Your task to perform on an android device: Open the calendar app, open the side menu, and click the "Day" option Image 0: 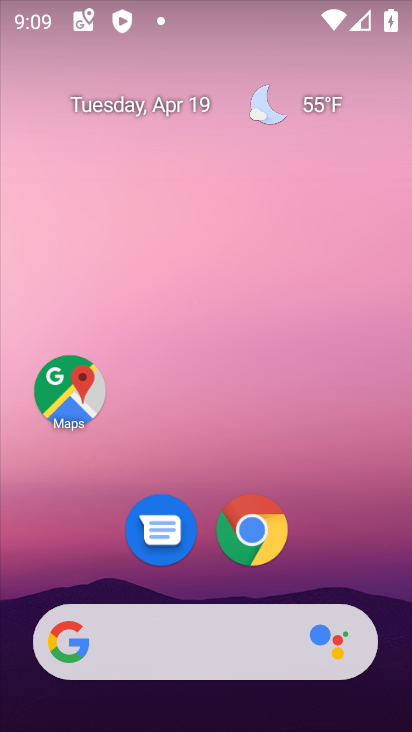
Step 0: drag from (341, 525) to (378, 109)
Your task to perform on an android device: Open the calendar app, open the side menu, and click the "Day" option Image 1: 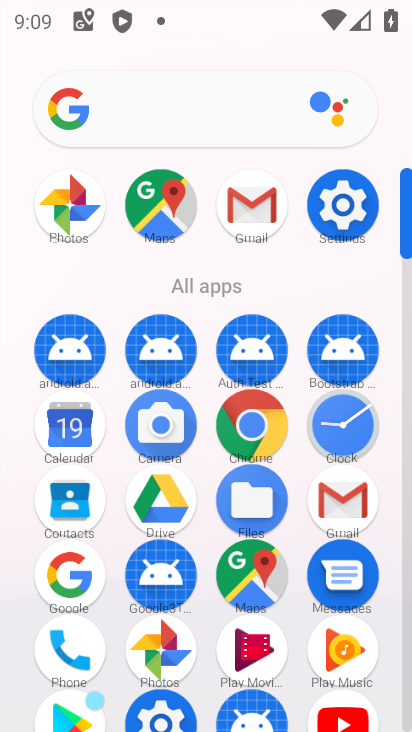
Step 1: click (69, 432)
Your task to perform on an android device: Open the calendar app, open the side menu, and click the "Day" option Image 2: 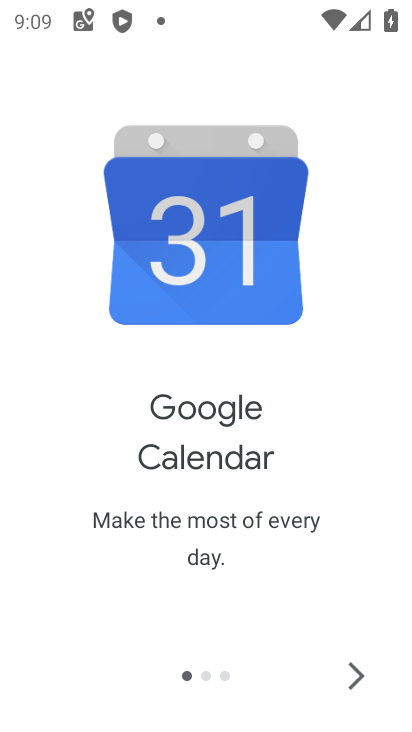
Step 2: click (349, 672)
Your task to perform on an android device: Open the calendar app, open the side menu, and click the "Day" option Image 3: 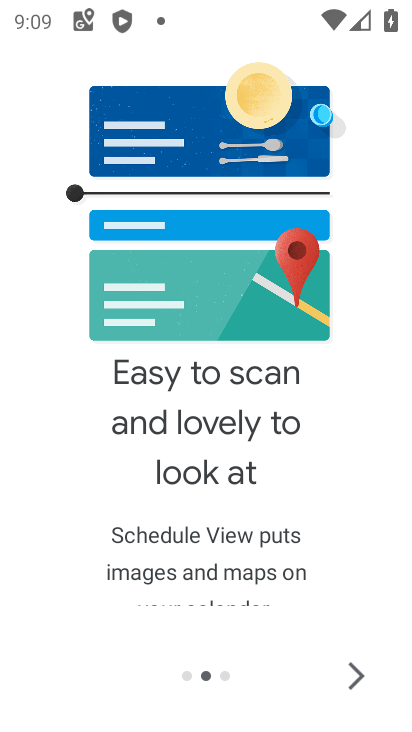
Step 3: click (349, 672)
Your task to perform on an android device: Open the calendar app, open the side menu, and click the "Day" option Image 4: 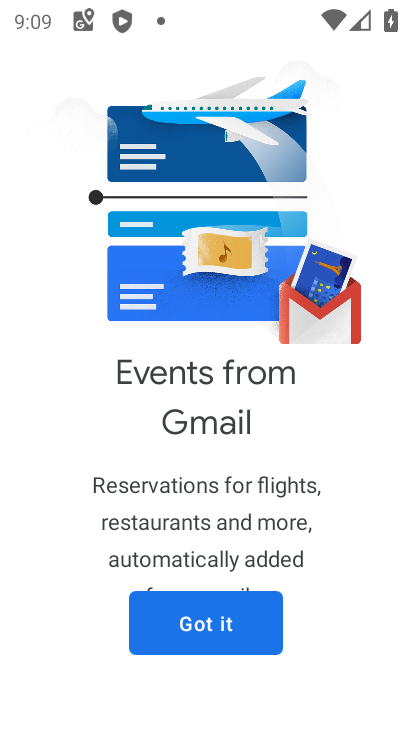
Step 4: click (222, 630)
Your task to perform on an android device: Open the calendar app, open the side menu, and click the "Day" option Image 5: 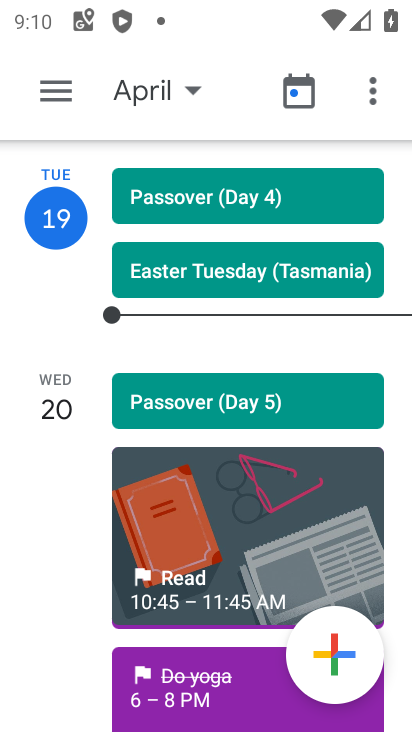
Step 5: click (50, 91)
Your task to perform on an android device: Open the calendar app, open the side menu, and click the "Day" option Image 6: 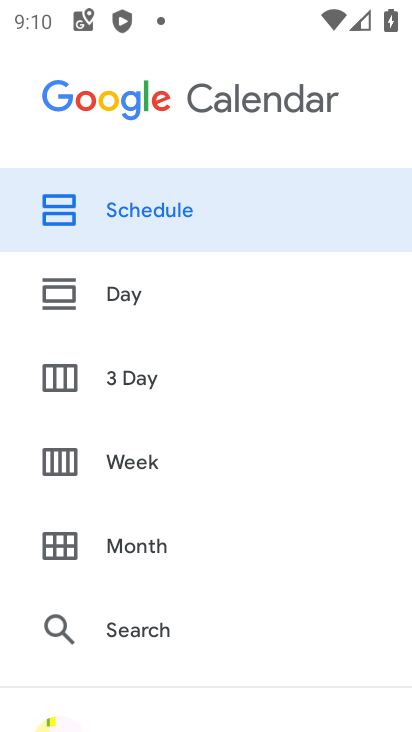
Step 6: click (135, 299)
Your task to perform on an android device: Open the calendar app, open the side menu, and click the "Day" option Image 7: 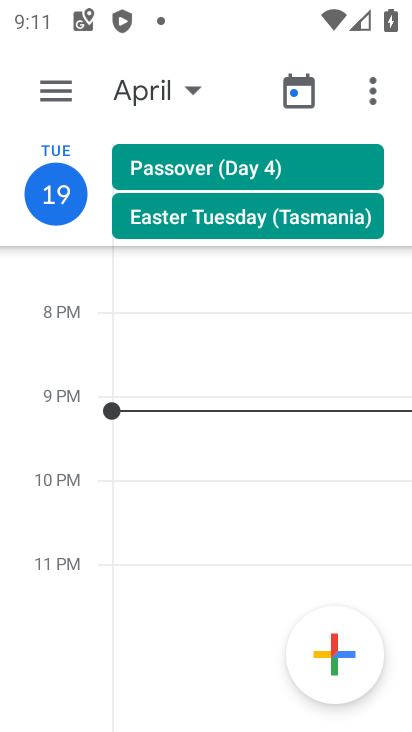
Step 7: task complete